Your task to perform on an android device: turn off location Image 0: 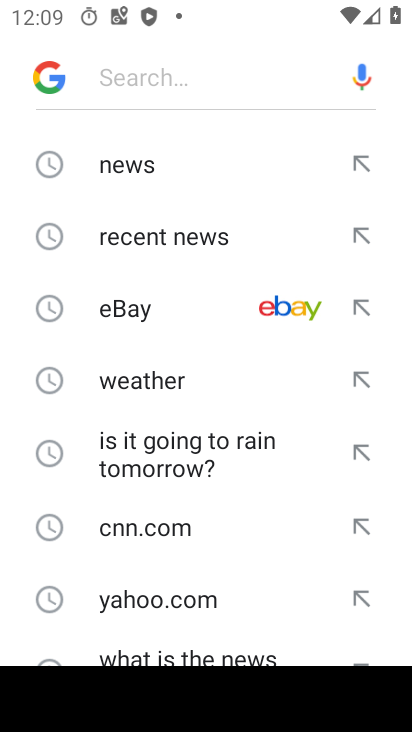
Step 0: press home button
Your task to perform on an android device: turn off location Image 1: 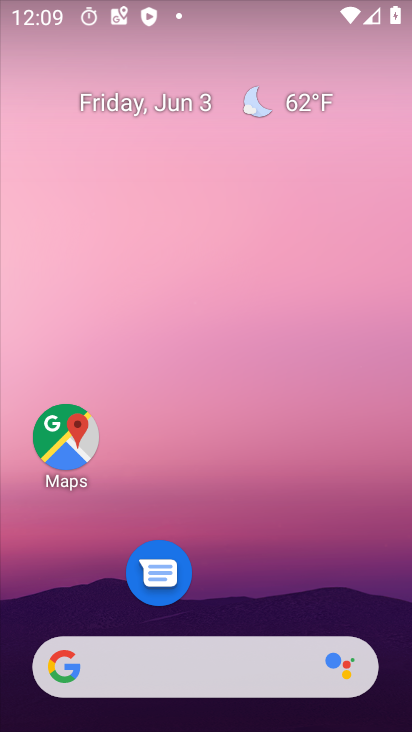
Step 1: drag from (313, 589) to (340, 33)
Your task to perform on an android device: turn off location Image 2: 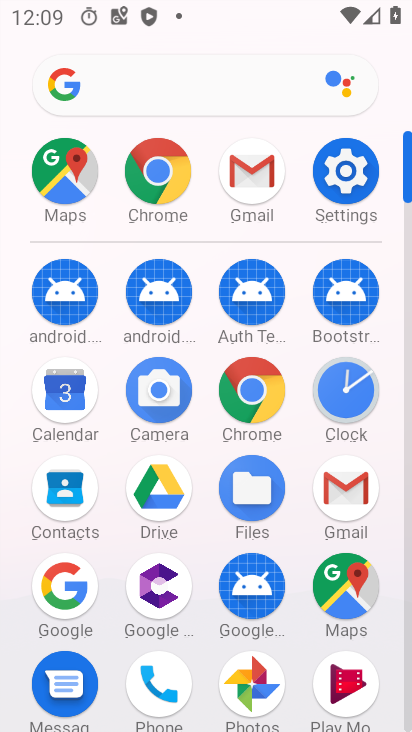
Step 2: click (369, 165)
Your task to perform on an android device: turn off location Image 3: 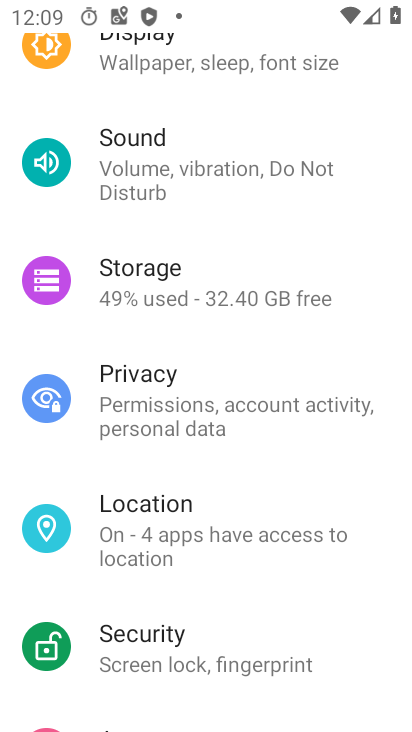
Step 3: click (221, 558)
Your task to perform on an android device: turn off location Image 4: 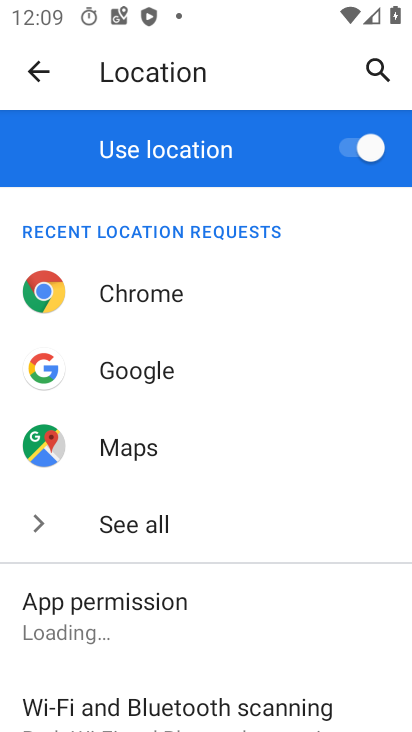
Step 4: click (350, 156)
Your task to perform on an android device: turn off location Image 5: 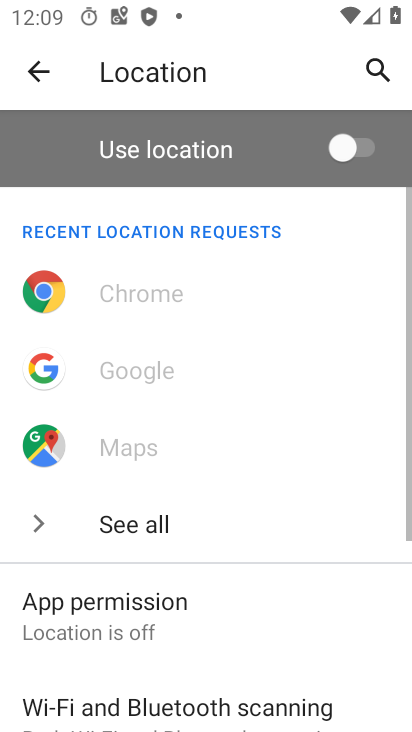
Step 5: task complete